Your task to perform on an android device: Open wifi settings Image 0: 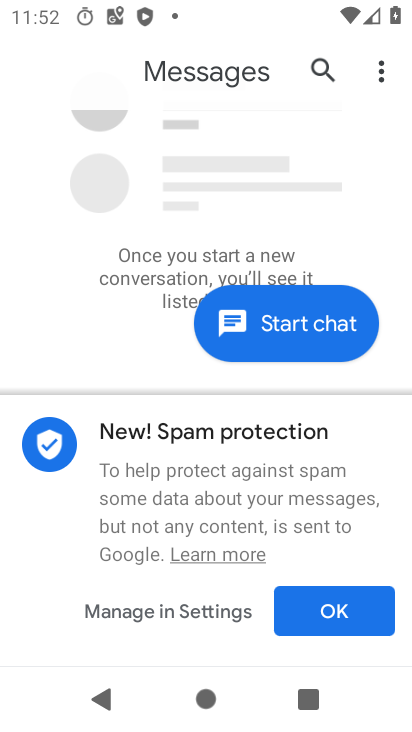
Step 0: press home button
Your task to perform on an android device: Open wifi settings Image 1: 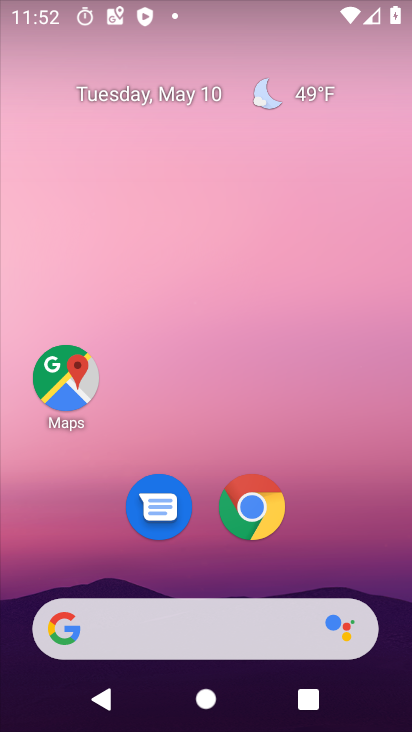
Step 1: drag from (206, 555) to (160, 112)
Your task to perform on an android device: Open wifi settings Image 2: 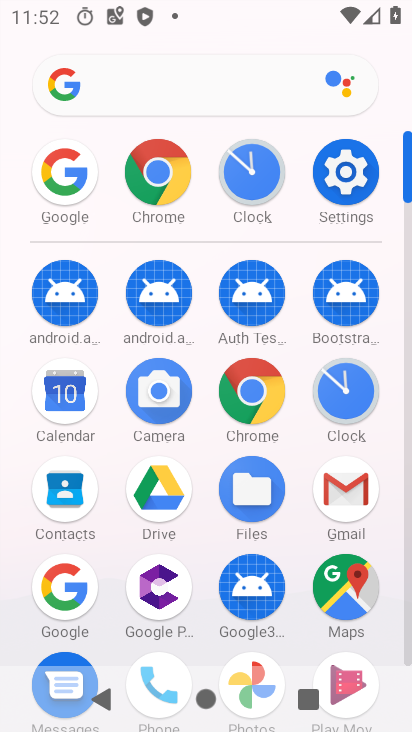
Step 2: click (348, 162)
Your task to perform on an android device: Open wifi settings Image 3: 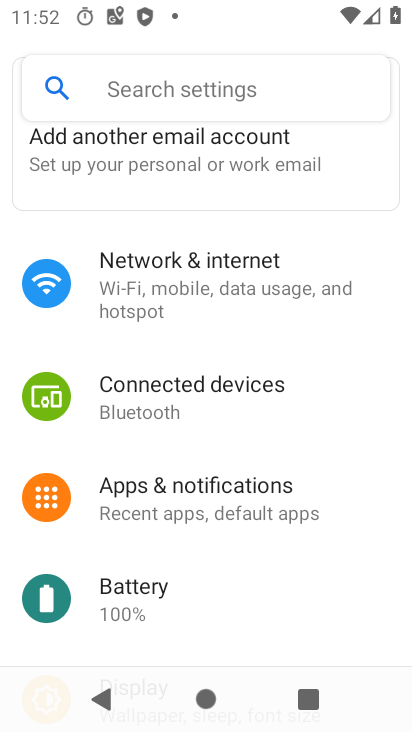
Step 3: click (200, 285)
Your task to perform on an android device: Open wifi settings Image 4: 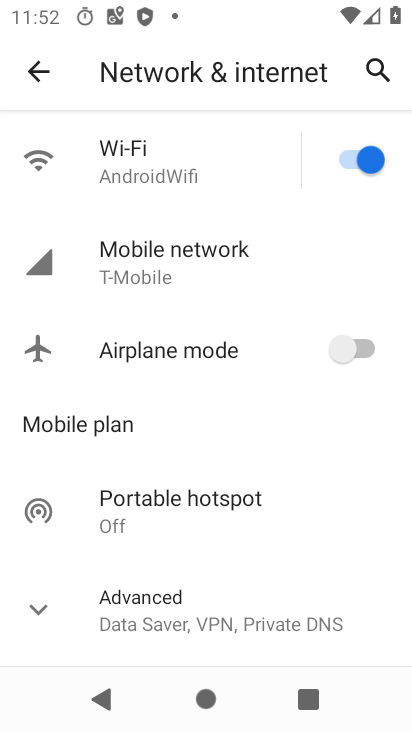
Step 4: click (176, 157)
Your task to perform on an android device: Open wifi settings Image 5: 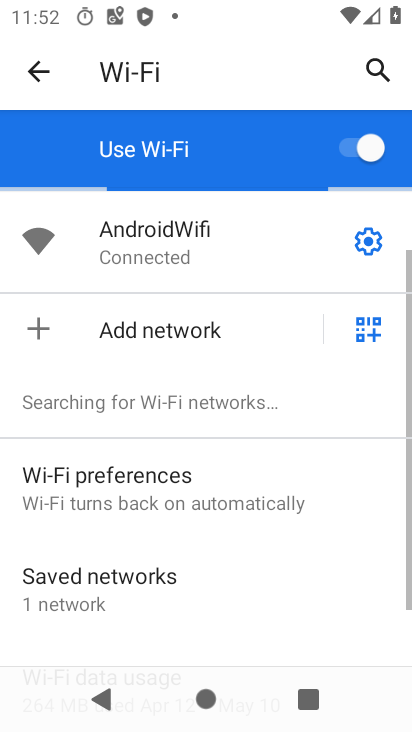
Step 5: click (373, 245)
Your task to perform on an android device: Open wifi settings Image 6: 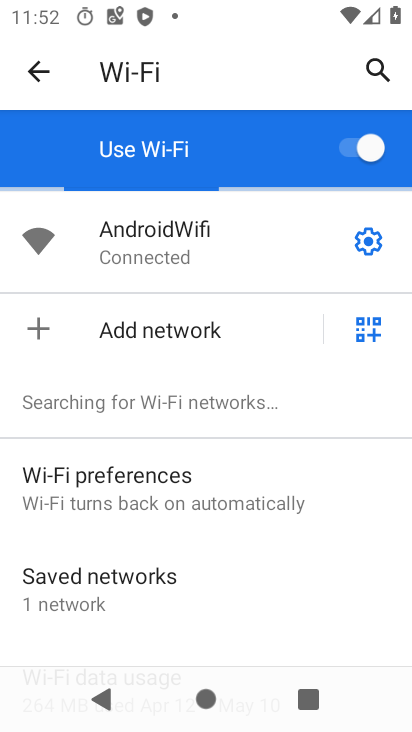
Step 6: click (385, 231)
Your task to perform on an android device: Open wifi settings Image 7: 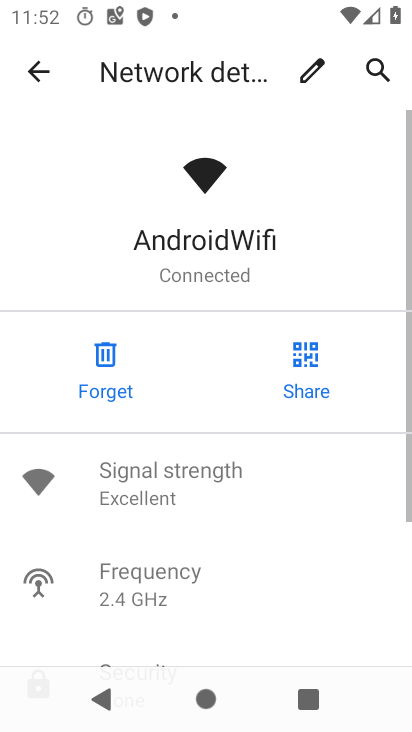
Step 7: task complete